Your task to perform on an android device: open app "ColorNote Notepad Notes" (install if not already installed) Image 0: 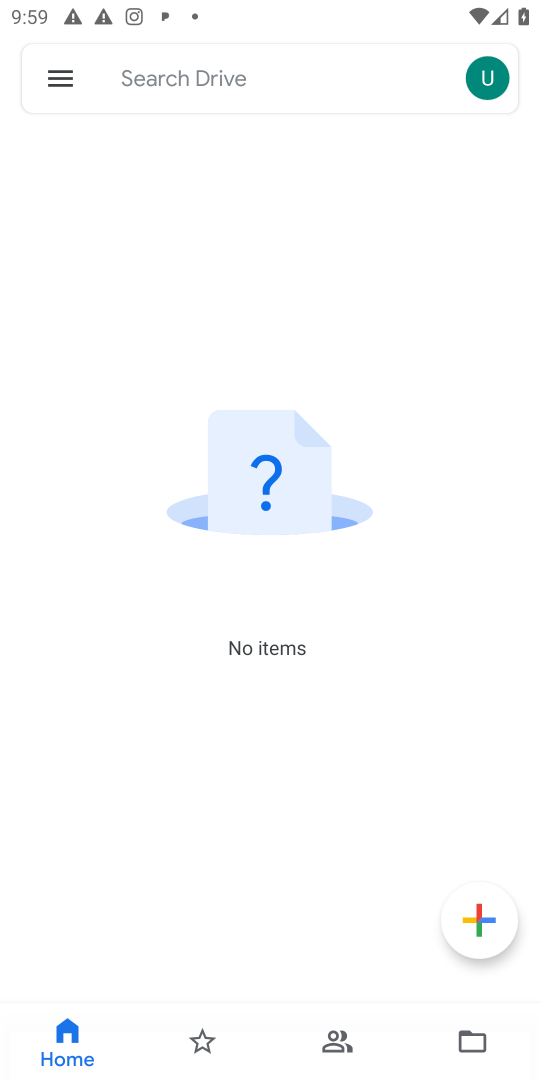
Step 0: press home button
Your task to perform on an android device: open app "ColorNote Notepad Notes" (install if not already installed) Image 1: 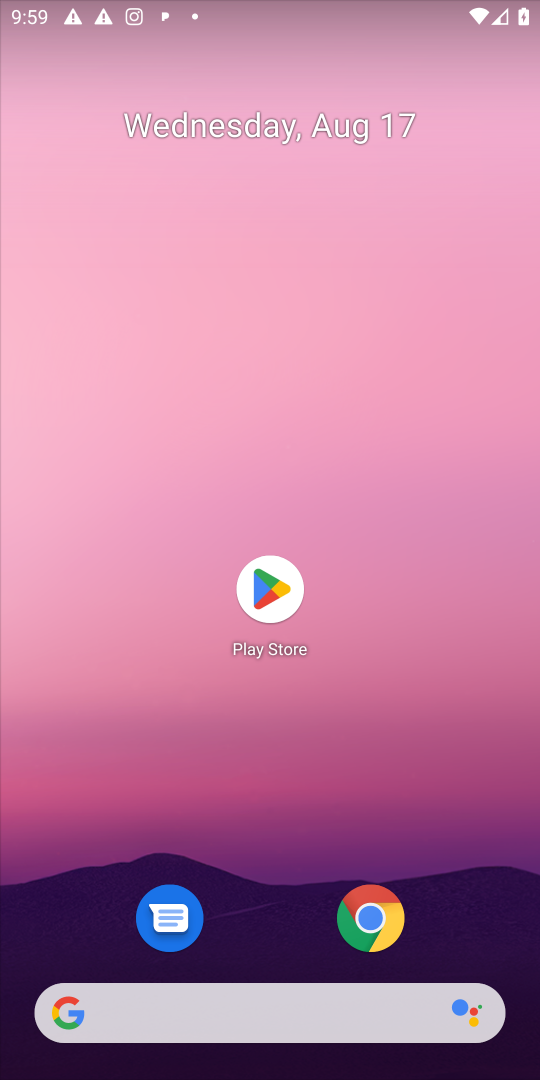
Step 1: click (279, 597)
Your task to perform on an android device: open app "ColorNote Notepad Notes" (install if not already installed) Image 2: 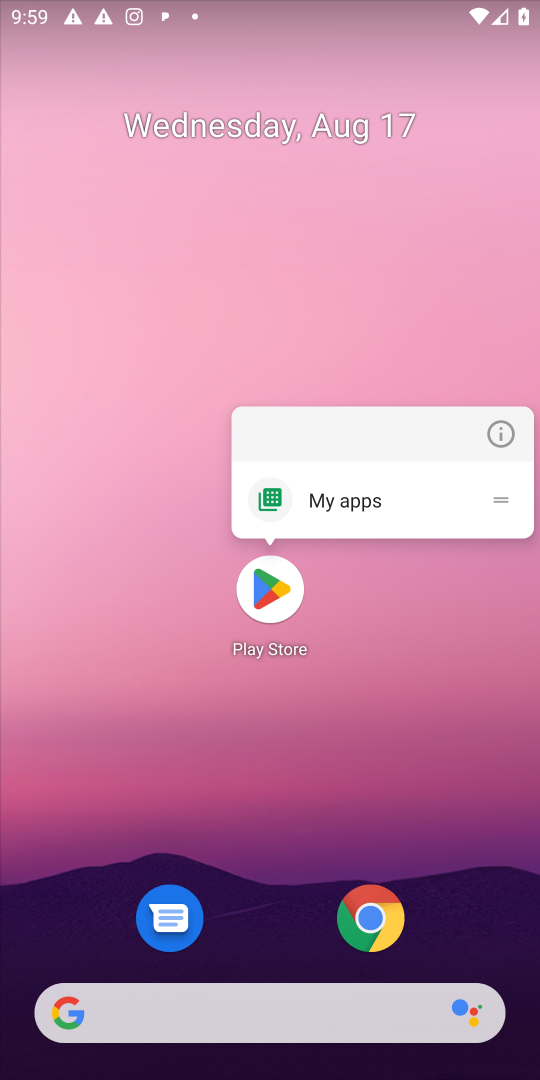
Step 2: click (263, 593)
Your task to perform on an android device: open app "ColorNote Notepad Notes" (install if not already installed) Image 3: 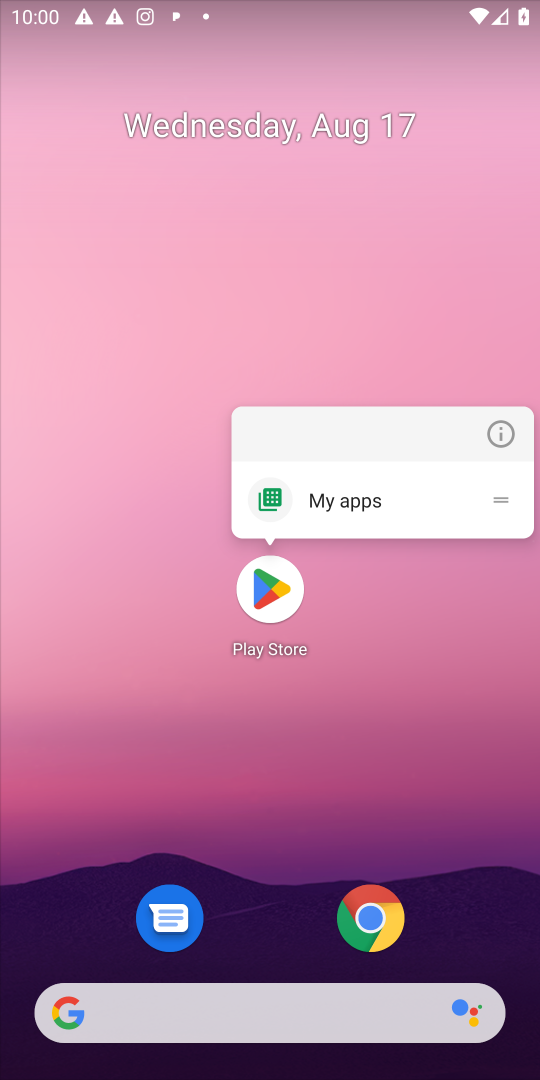
Step 3: click (263, 591)
Your task to perform on an android device: open app "ColorNote Notepad Notes" (install if not already installed) Image 4: 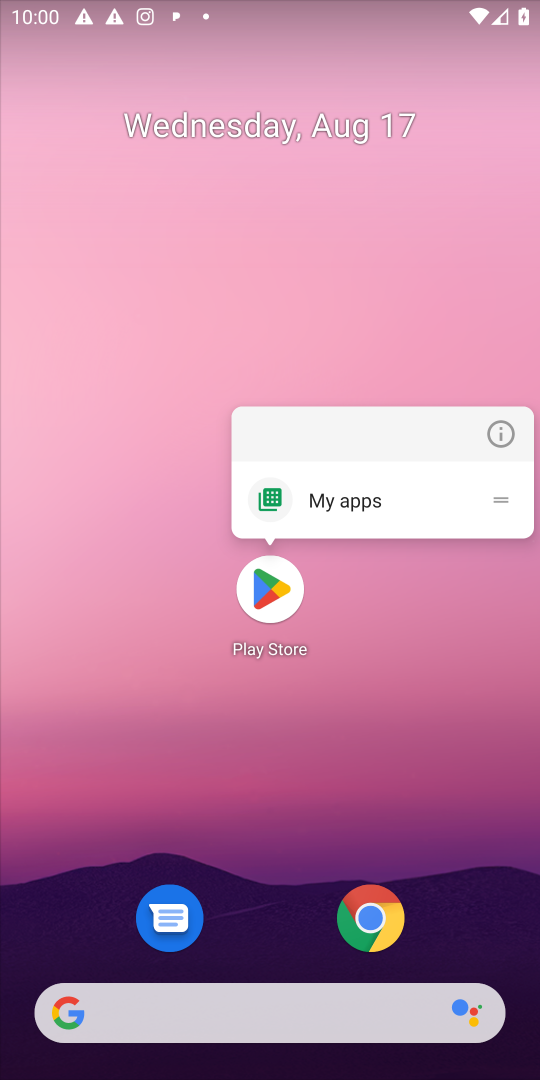
Step 4: click (263, 591)
Your task to perform on an android device: open app "ColorNote Notepad Notes" (install if not already installed) Image 5: 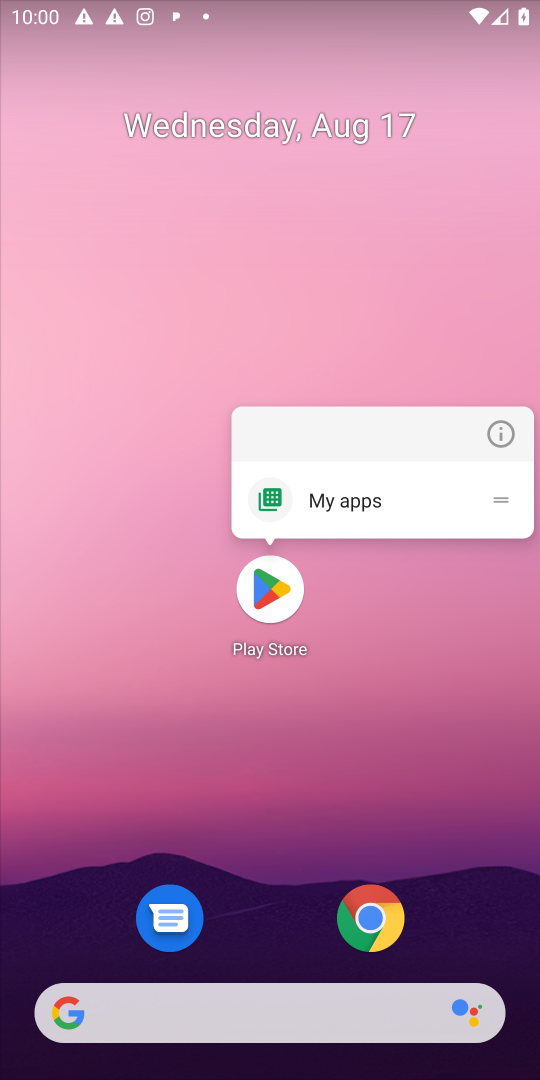
Step 5: click (263, 589)
Your task to perform on an android device: open app "ColorNote Notepad Notes" (install if not already installed) Image 6: 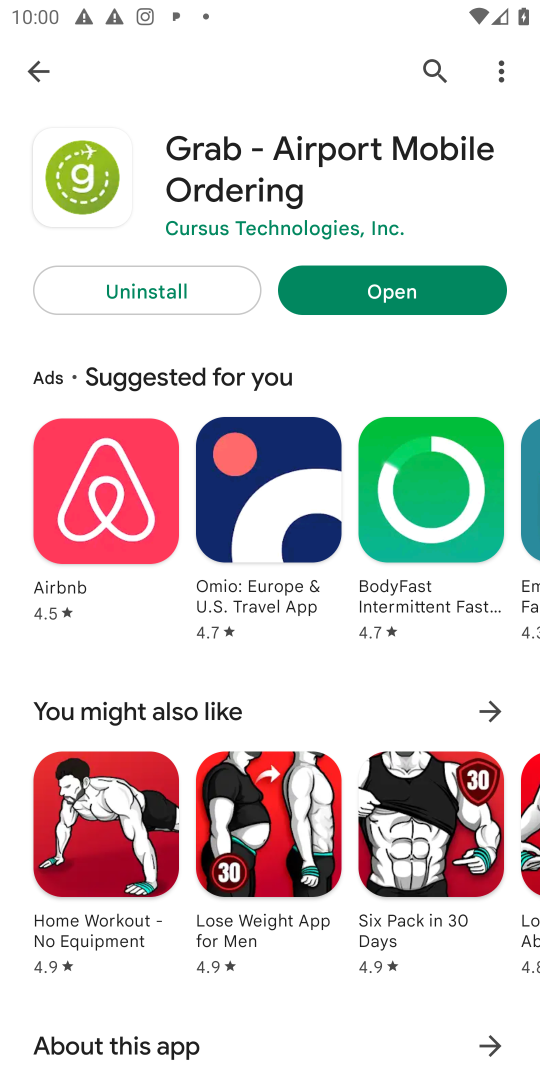
Step 6: click (427, 67)
Your task to perform on an android device: open app "ColorNote Notepad Notes" (install if not already installed) Image 7: 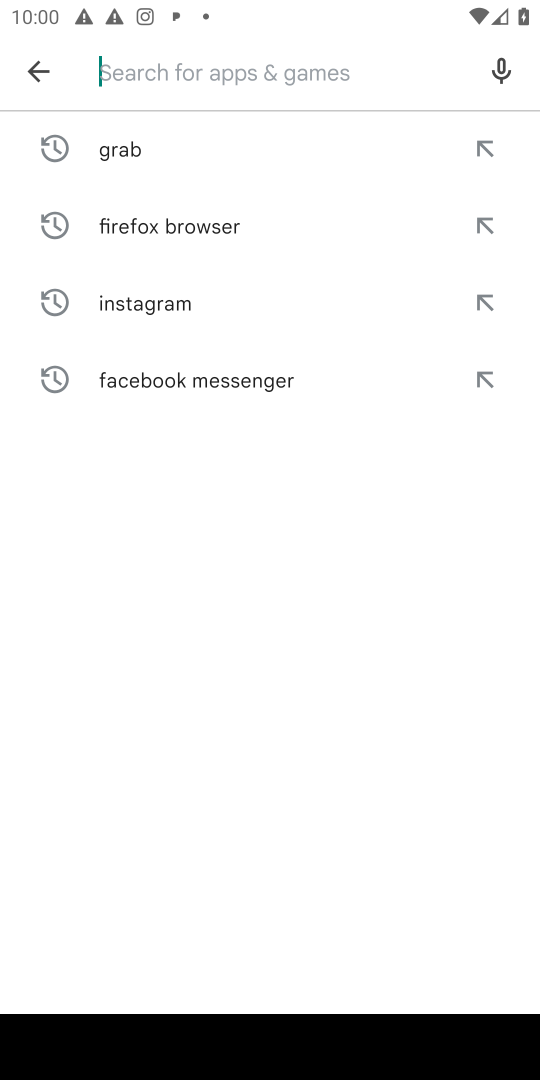
Step 7: type "ColorNote Notepad Notes"
Your task to perform on an android device: open app "ColorNote Notepad Notes" (install if not already installed) Image 8: 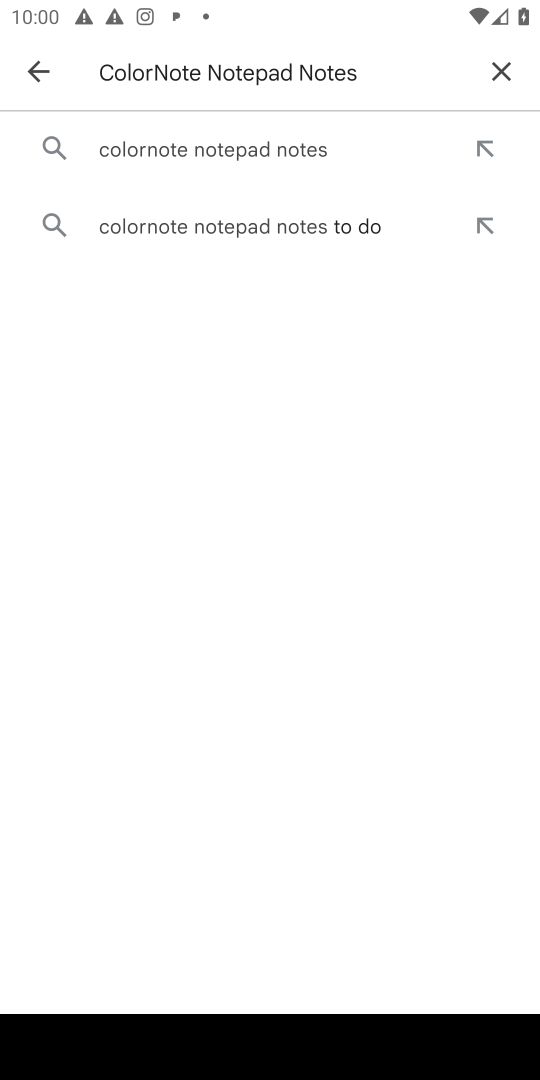
Step 8: click (293, 146)
Your task to perform on an android device: open app "ColorNote Notepad Notes" (install if not already installed) Image 9: 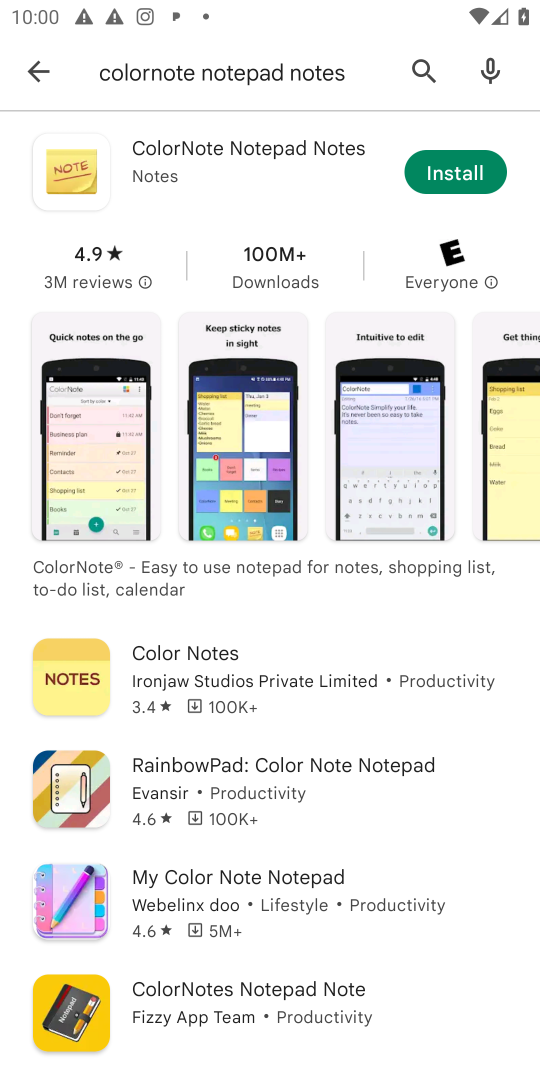
Step 9: click (467, 173)
Your task to perform on an android device: open app "ColorNote Notepad Notes" (install if not already installed) Image 10: 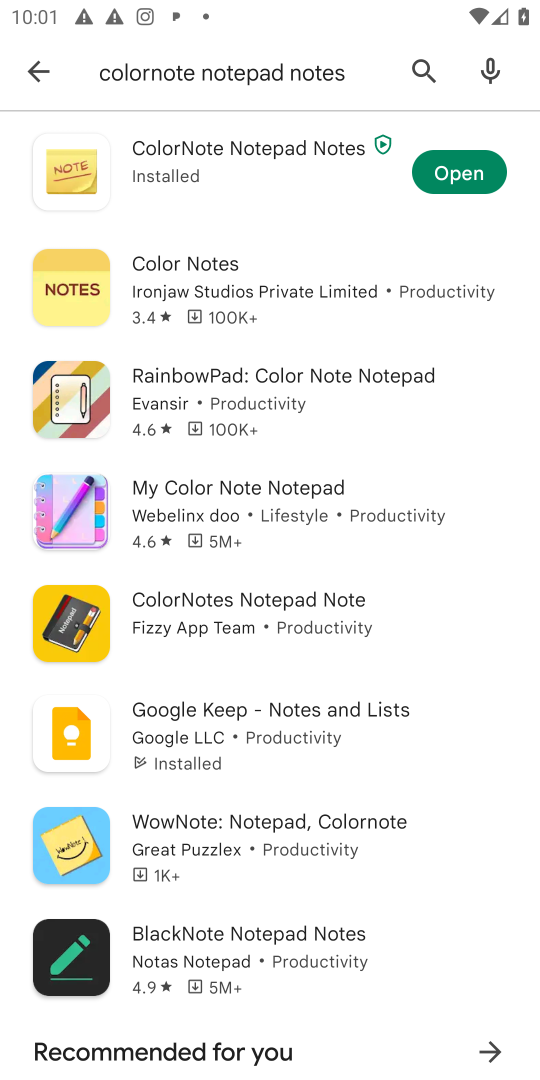
Step 10: click (468, 172)
Your task to perform on an android device: open app "ColorNote Notepad Notes" (install if not already installed) Image 11: 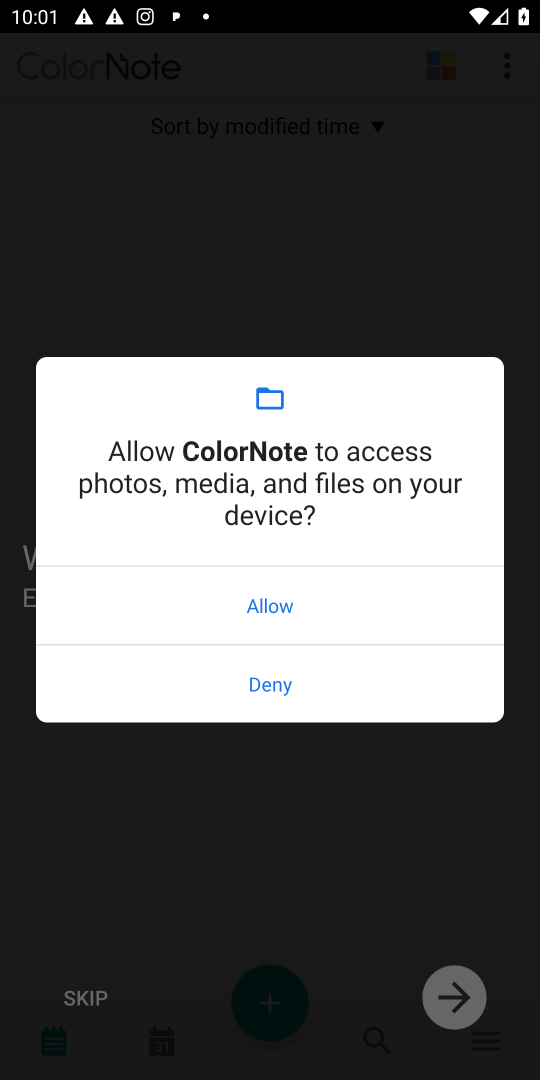
Step 11: click (348, 595)
Your task to perform on an android device: open app "ColorNote Notepad Notes" (install if not already installed) Image 12: 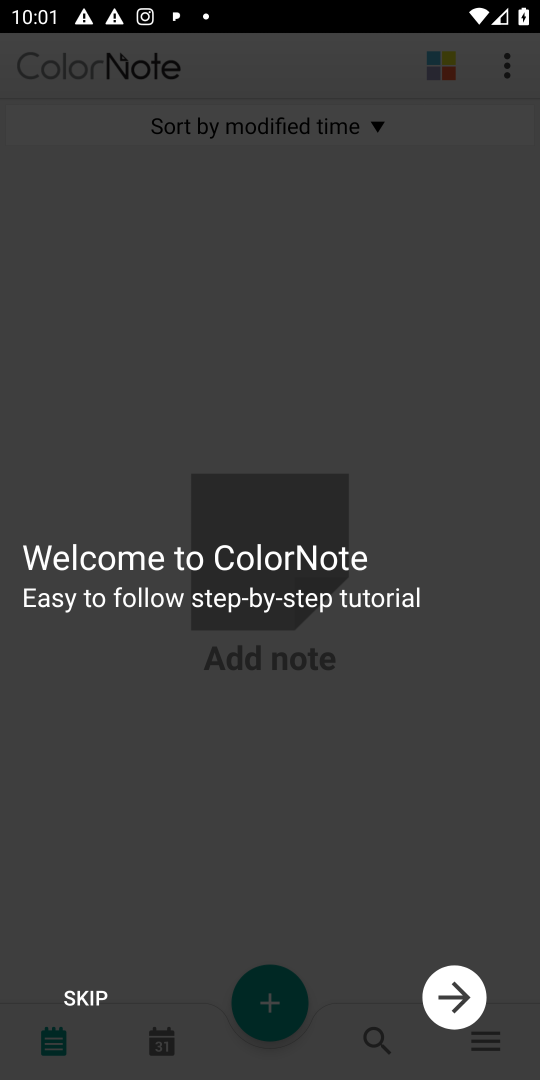
Step 12: task complete